Your task to perform on an android device: Open network settings Image 0: 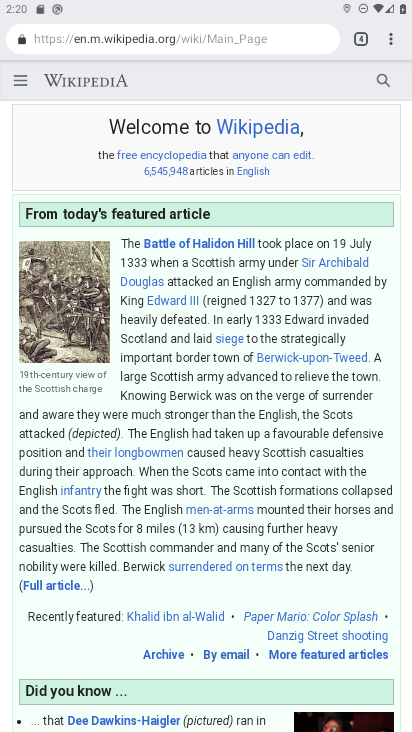
Step 0: press home button
Your task to perform on an android device: Open network settings Image 1: 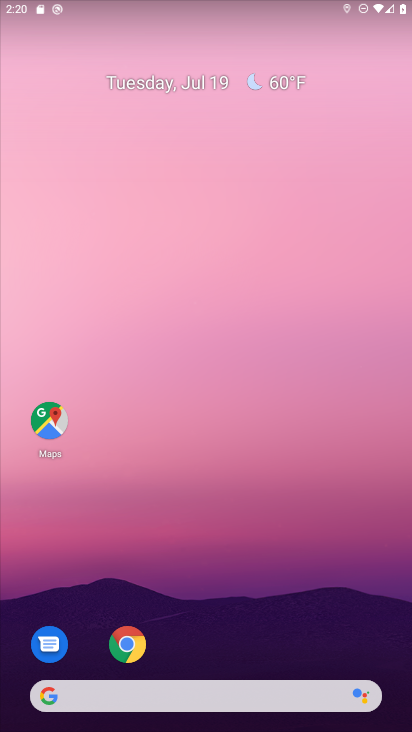
Step 1: drag from (208, 676) to (197, 161)
Your task to perform on an android device: Open network settings Image 2: 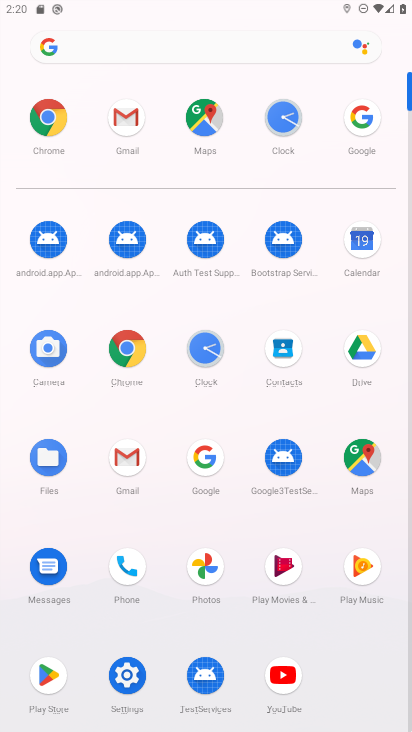
Step 2: click (137, 678)
Your task to perform on an android device: Open network settings Image 3: 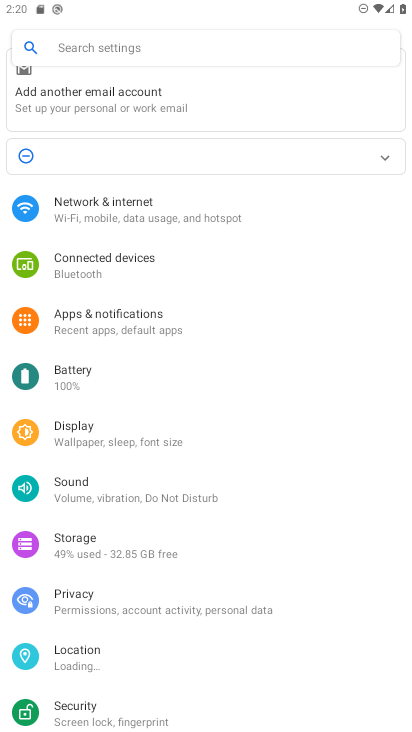
Step 3: click (106, 197)
Your task to perform on an android device: Open network settings Image 4: 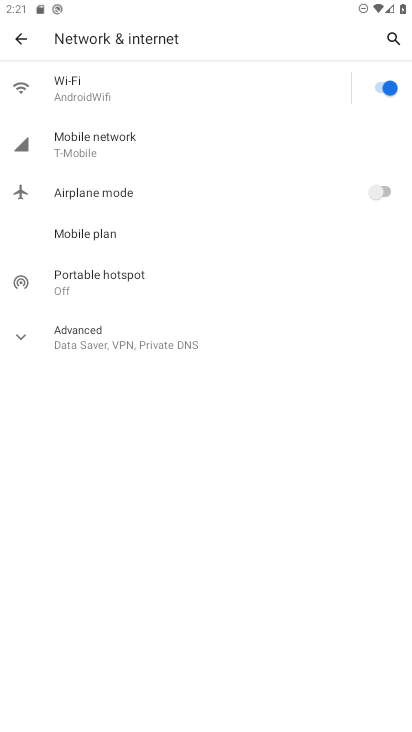
Step 4: click (90, 141)
Your task to perform on an android device: Open network settings Image 5: 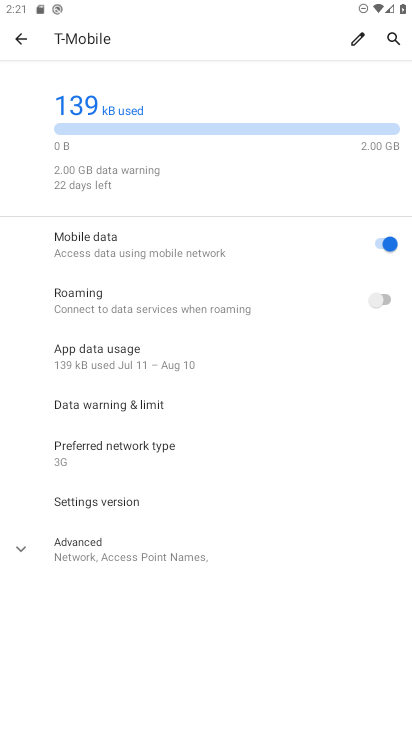
Step 5: task complete